Your task to perform on an android device: allow notifications from all sites in the chrome app Image 0: 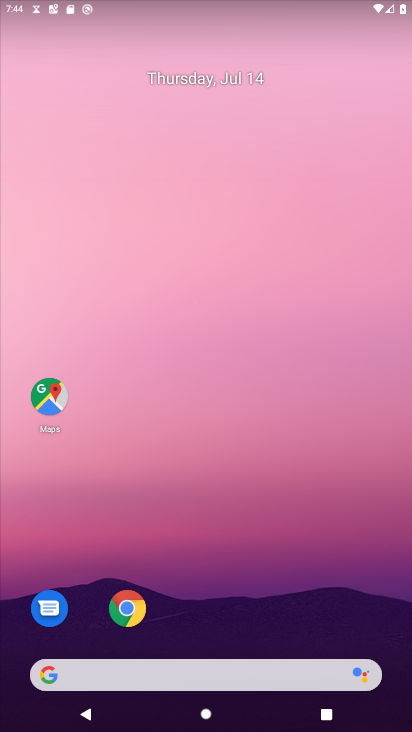
Step 0: click (131, 613)
Your task to perform on an android device: allow notifications from all sites in the chrome app Image 1: 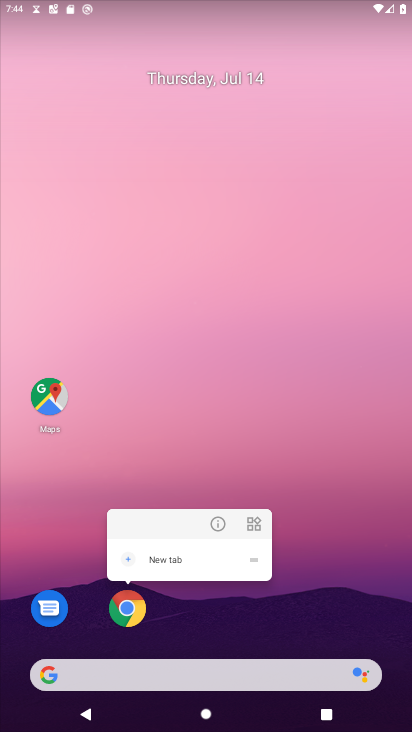
Step 1: click (218, 514)
Your task to perform on an android device: allow notifications from all sites in the chrome app Image 2: 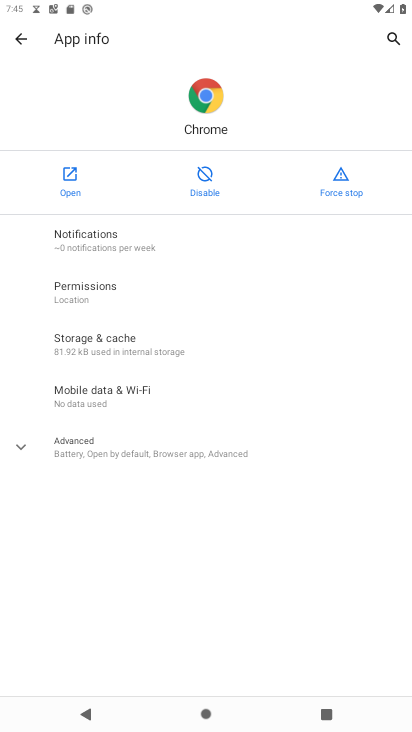
Step 2: click (79, 243)
Your task to perform on an android device: allow notifications from all sites in the chrome app Image 3: 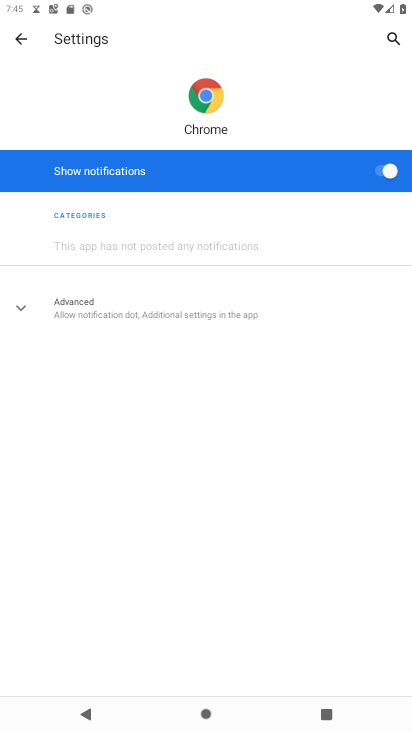
Step 3: click (84, 303)
Your task to perform on an android device: allow notifications from all sites in the chrome app Image 4: 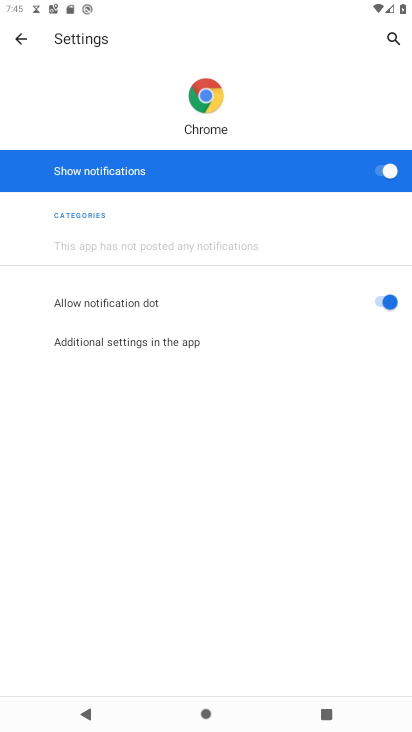
Step 4: task complete